Your task to perform on an android device: Open settings Image 0: 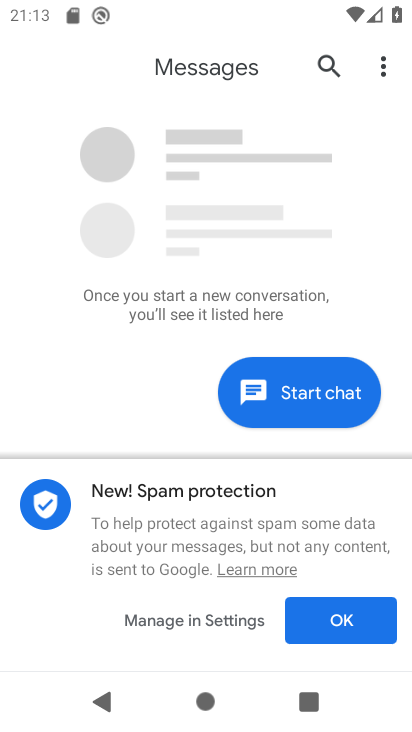
Step 0: press home button
Your task to perform on an android device: Open settings Image 1: 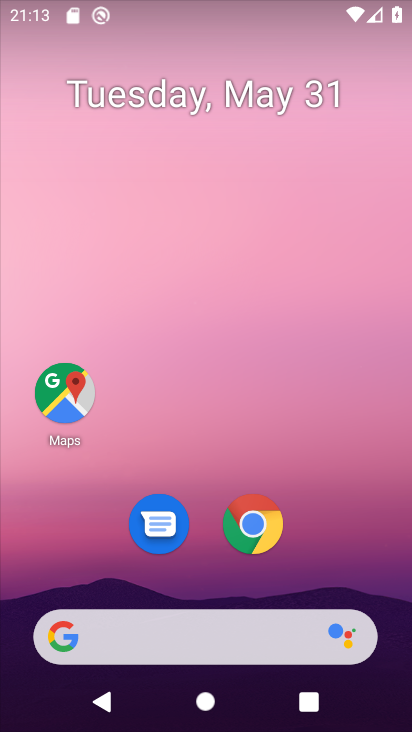
Step 1: drag from (312, 523) to (312, 9)
Your task to perform on an android device: Open settings Image 2: 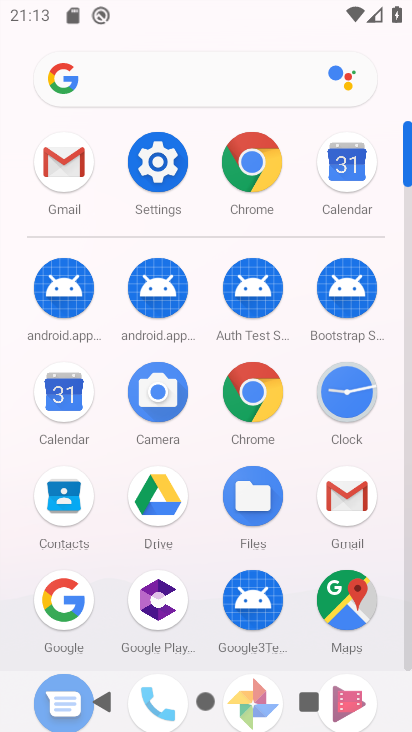
Step 2: click (170, 159)
Your task to perform on an android device: Open settings Image 3: 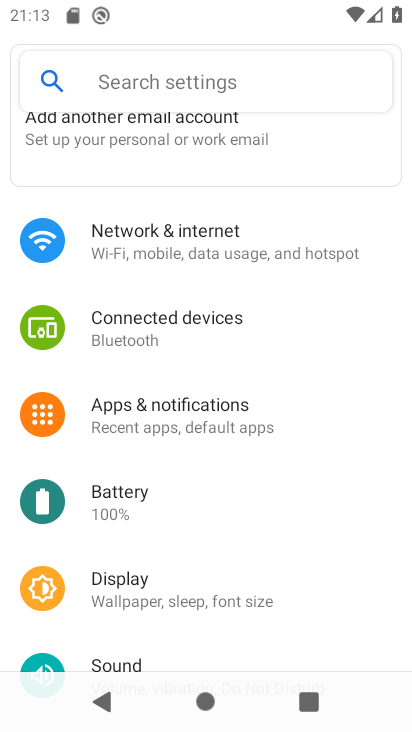
Step 3: task complete